Your task to perform on an android device: check battery use Image 0: 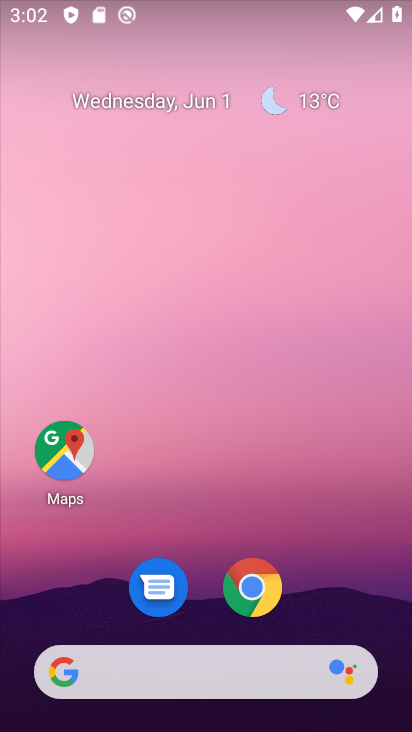
Step 0: drag from (308, 576) to (123, 2)
Your task to perform on an android device: check battery use Image 1: 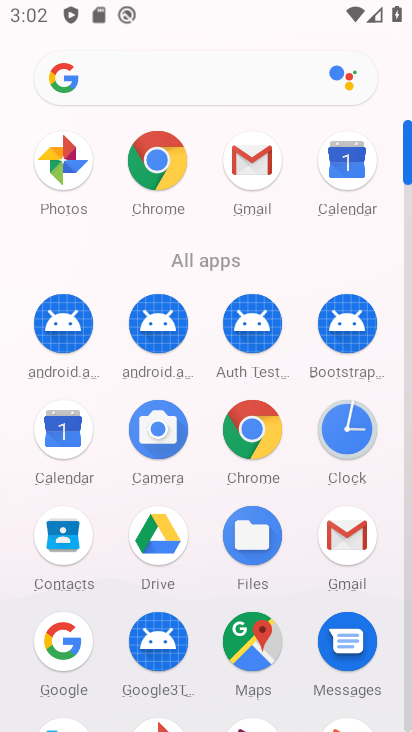
Step 1: drag from (7, 594) to (31, 215)
Your task to perform on an android device: check battery use Image 2: 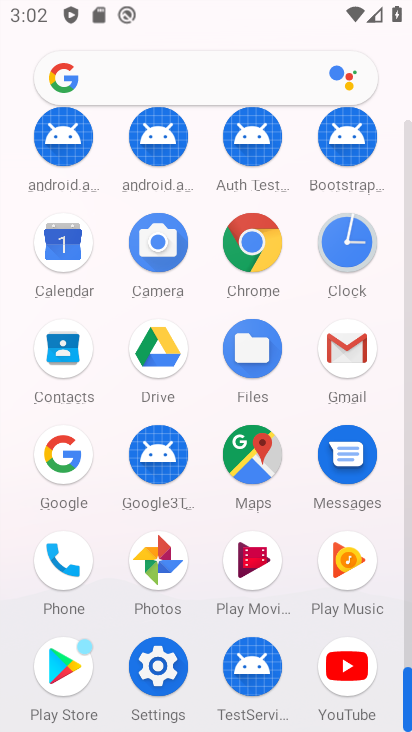
Step 2: click (160, 667)
Your task to perform on an android device: check battery use Image 3: 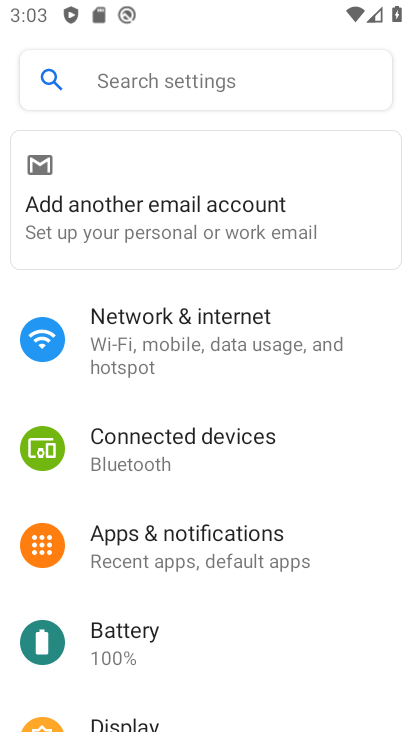
Step 3: drag from (339, 395) to (351, 130)
Your task to perform on an android device: check battery use Image 4: 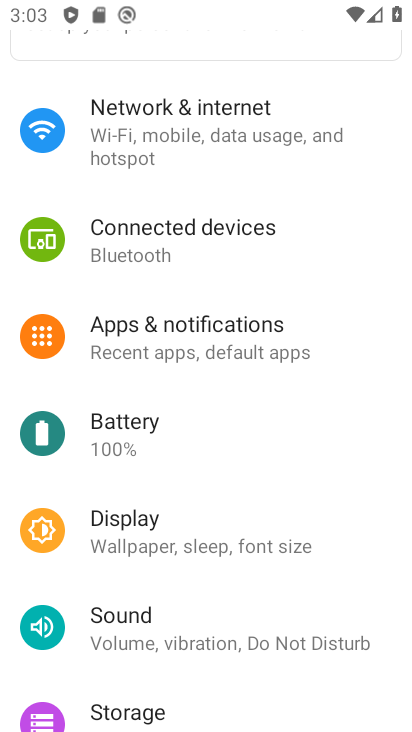
Step 4: click (162, 436)
Your task to perform on an android device: check battery use Image 5: 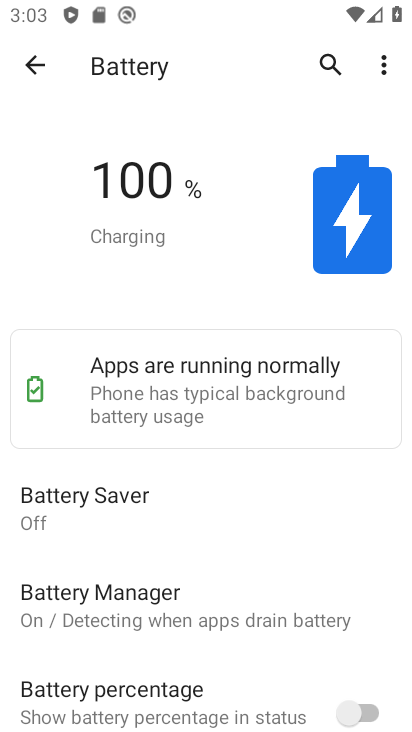
Step 5: task complete